Your task to perform on an android device: manage bookmarks in the chrome app Image 0: 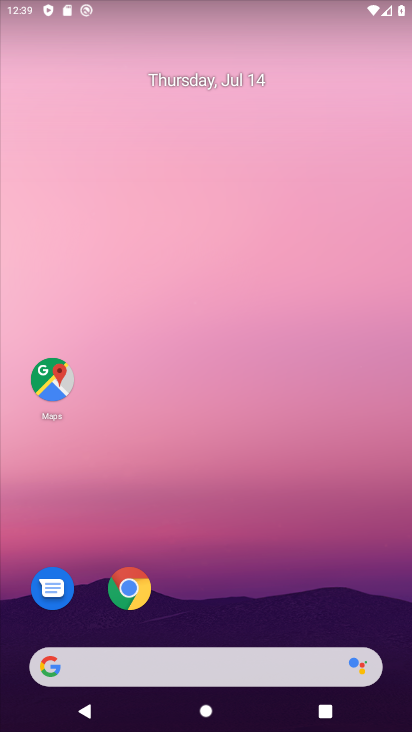
Step 0: click (124, 591)
Your task to perform on an android device: manage bookmarks in the chrome app Image 1: 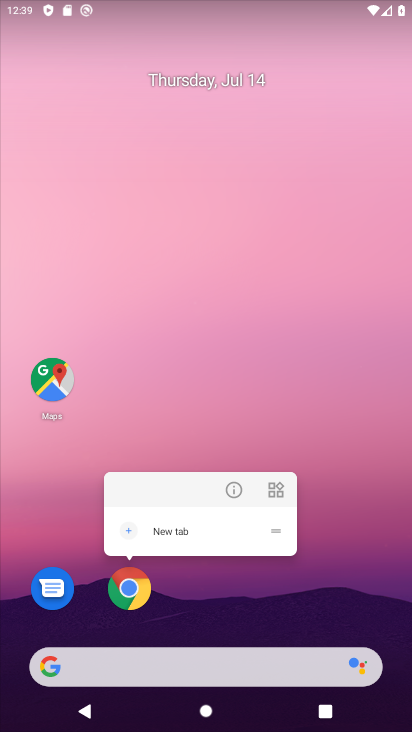
Step 1: click (124, 591)
Your task to perform on an android device: manage bookmarks in the chrome app Image 2: 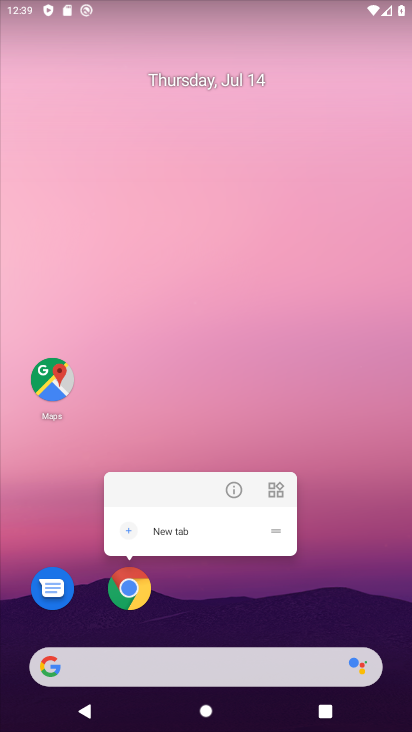
Step 2: click (124, 591)
Your task to perform on an android device: manage bookmarks in the chrome app Image 3: 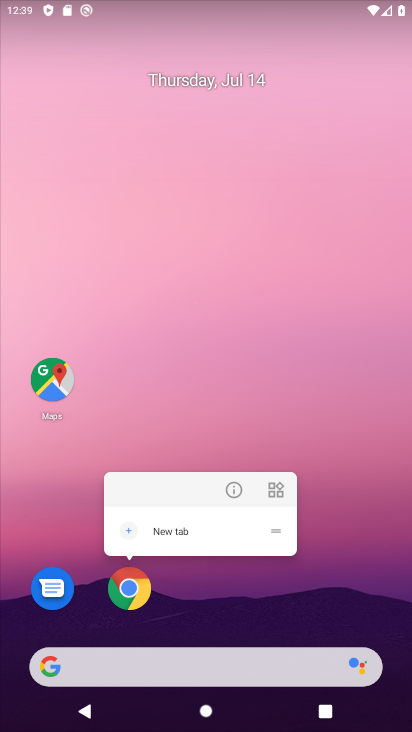
Step 3: click (124, 591)
Your task to perform on an android device: manage bookmarks in the chrome app Image 4: 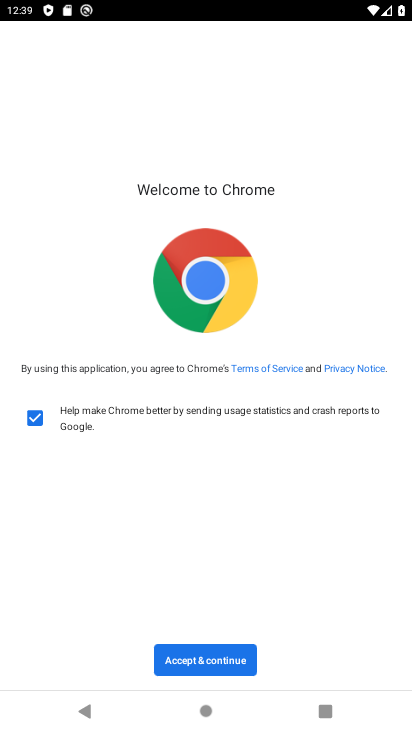
Step 4: click (230, 654)
Your task to perform on an android device: manage bookmarks in the chrome app Image 5: 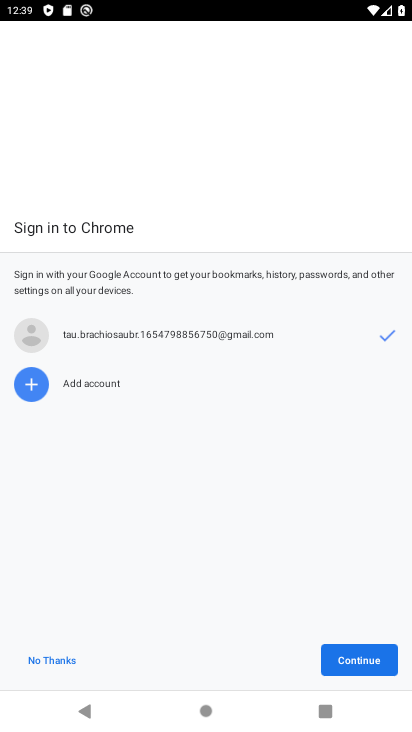
Step 5: click (342, 653)
Your task to perform on an android device: manage bookmarks in the chrome app Image 6: 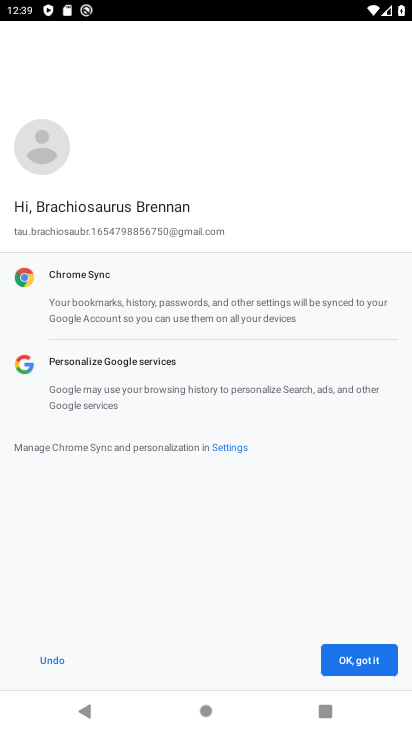
Step 6: click (342, 653)
Your task to perform on an android device: manage bookmarks in the chrome app Image 7: 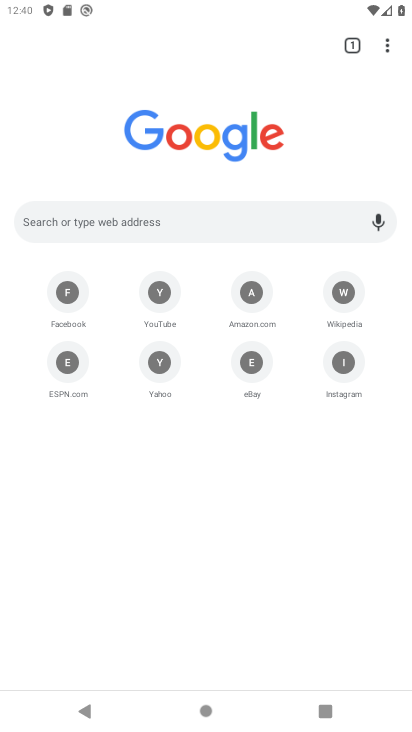
Step 7: click (385, 52)
Your task to perform on an android device: manage bookmarks in the chrome app Image 8: 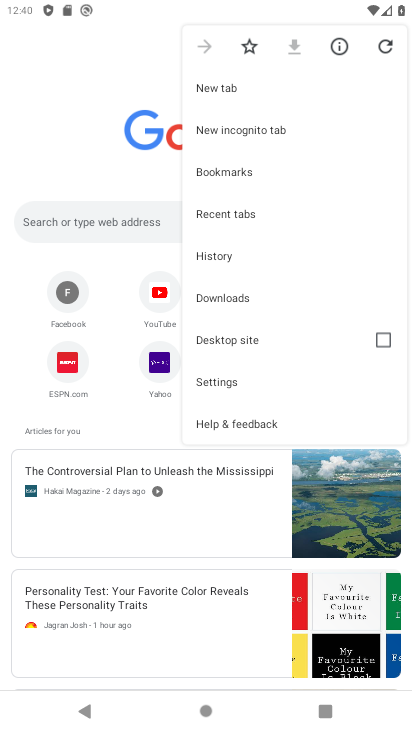
Step 8: click (263, 173)
Your task to perform on an android device: manage bookmarks in the chrome app Image 9: 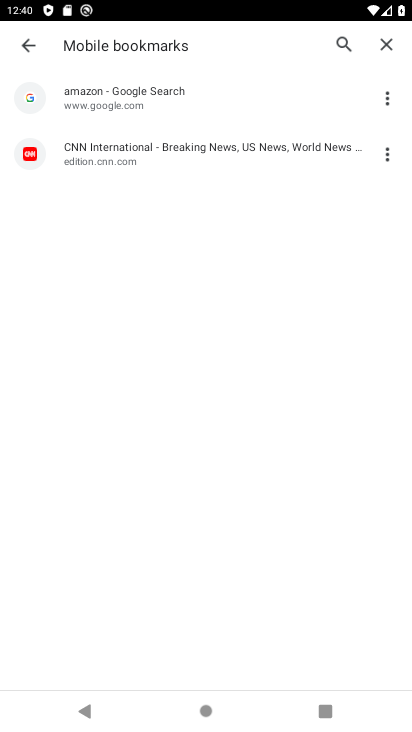
Step 9: click (392, 152)
Your task to perform on an android device: manage bookmarks in the chrome app Image 10: 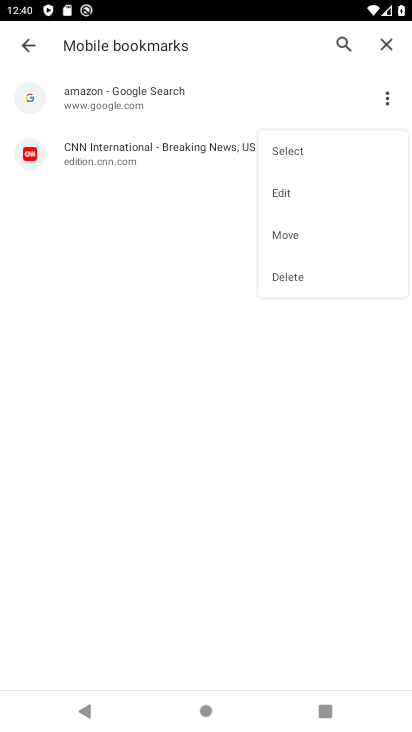
Step 10: click (300, 285)
Your task to perform on an android device: manage bookmarks in the chrome app Image 11: 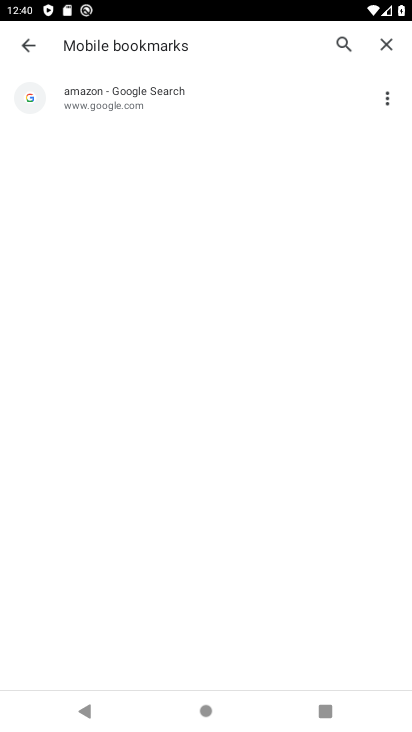
Step 11: task complete